Your task to perform on an android device: Show me popular videos on Youtube Image 0: 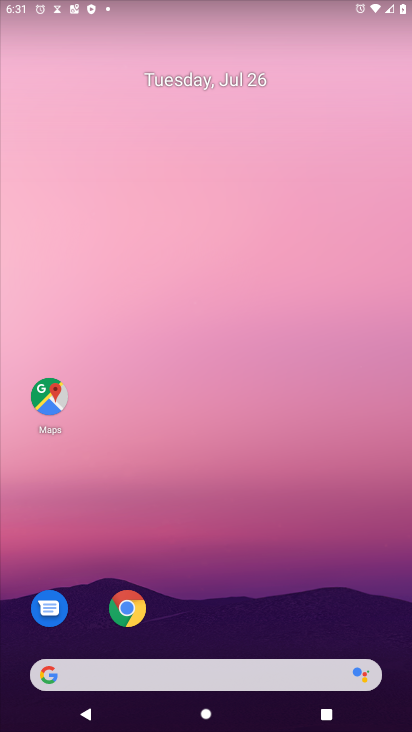
Step 0: press home button
Your task to perform on an android device: Show me popular videos on Youtube Image 1: 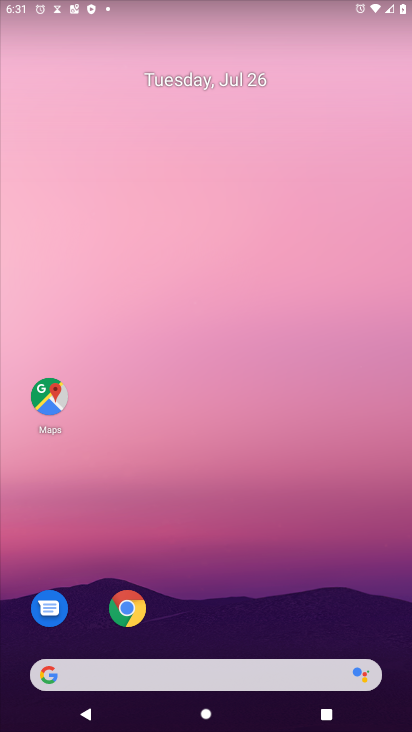
Step 1: drag from (227, 625) to (211, 246)
Your task to perform on an android device: Show me popular videos on Youtube Image 2: 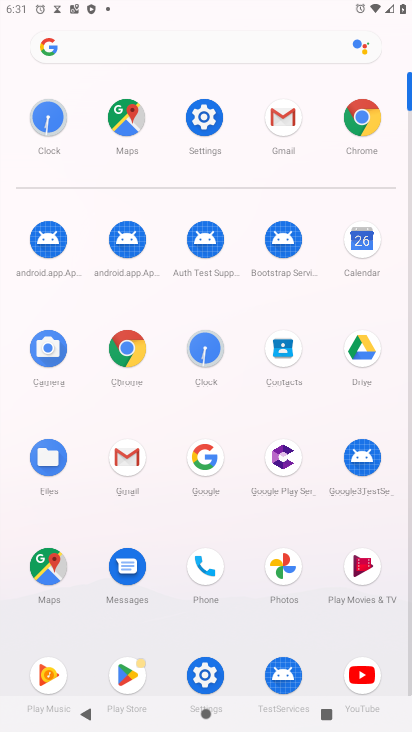
Step 2: click (367, 670)
Your task to perform on an android device: Show me popular videos on Youtube Image 3: 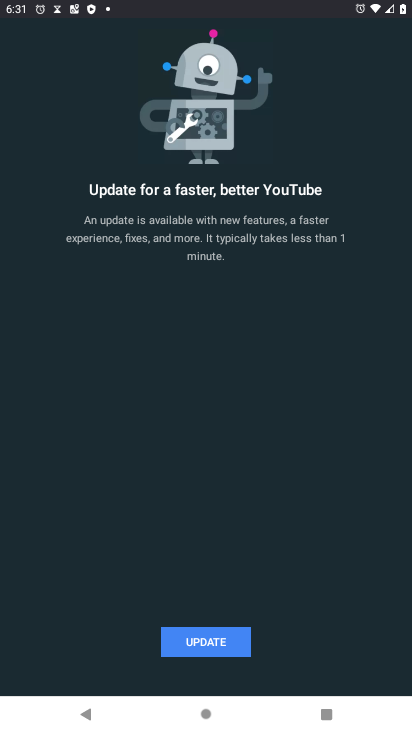
Step 3: click (186, 632)
Your task to perform on an android device: Show me popular videos on Youtube Image 4: 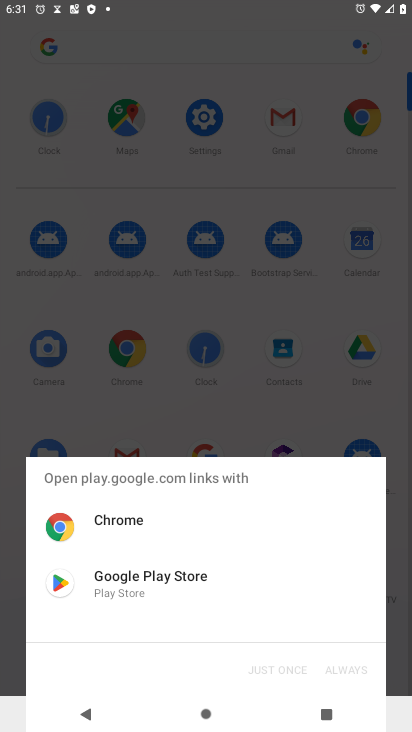
Step 4: click (150, 579)
Your task to perform on an android device: Show me popular videos on Youtube Image 5: 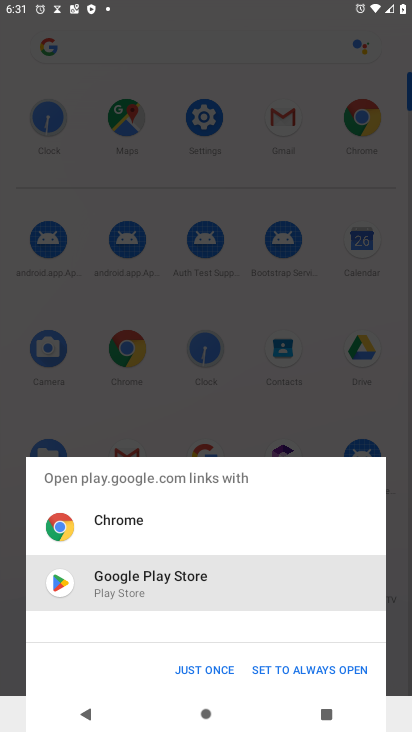
Step 5: click (197, 666)
Your task to perform on an android device: Show me popular videos on Youtube Image 6: 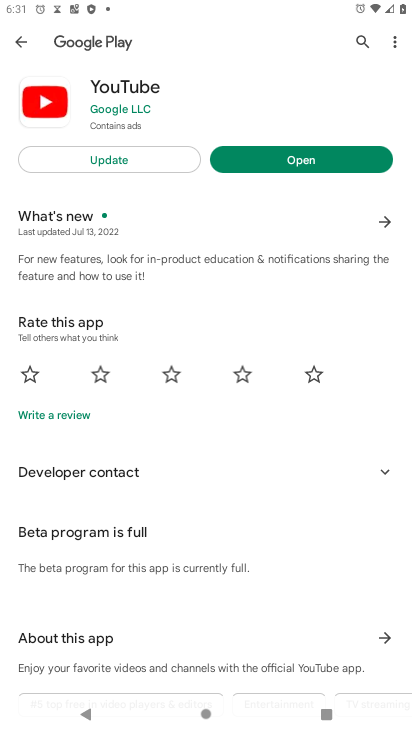
Step 6: click (147, 163)
Your task to perform on an android device: Show me popular videos on Youtube Image 7: 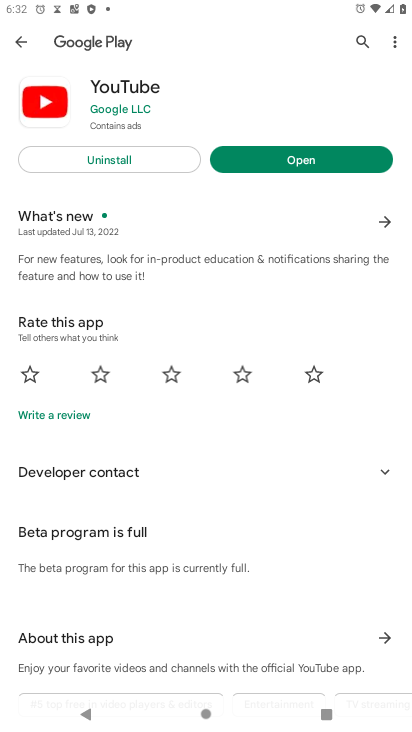
Step 7: click (272, 167)
Your task to perform on an android device: Show me popular videos on Youtube Image 8: 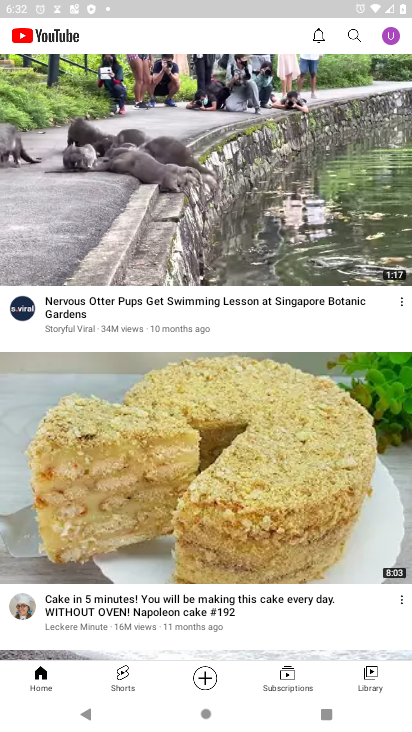
Step 8: click (41, 678)
Your task to perform on an android device: Show me popular videos on Youtube Image 9: 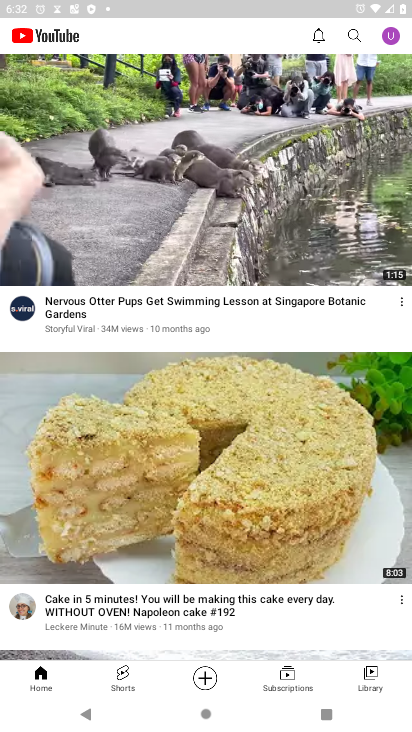
Step 9: drag from (140, 257) to (115, 720)
Your task to perform on an android device: Show me popular videos on Youtube Image 10: 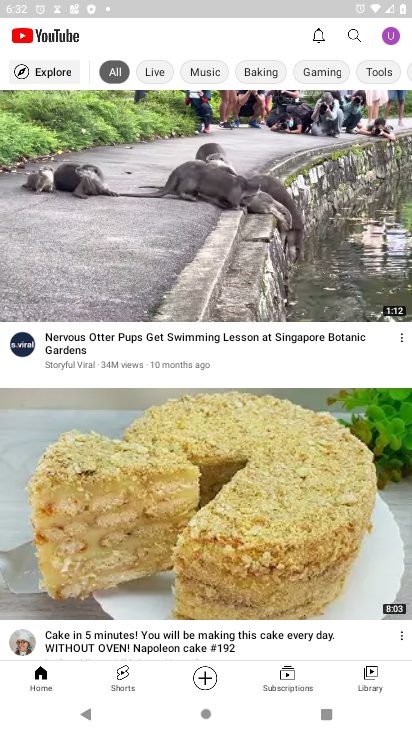
Step 10: click (44, 77)
Your task to perform on an android device: Show me popular videos on Youtube Image 11: 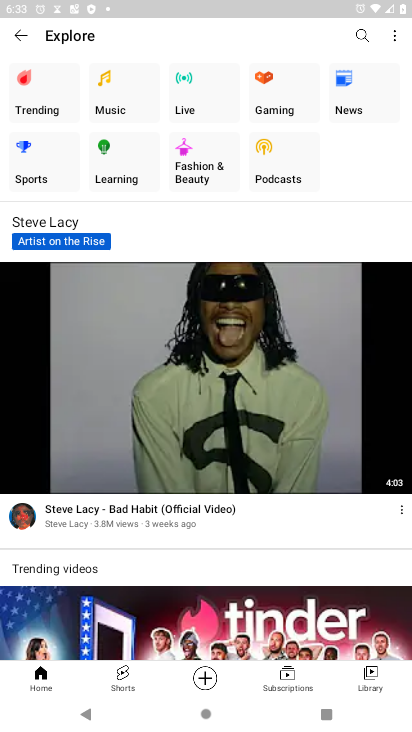
Step 11: click (28, 88)
Your task to perform on an android device: Show me popular videos on Youtube Image 12: 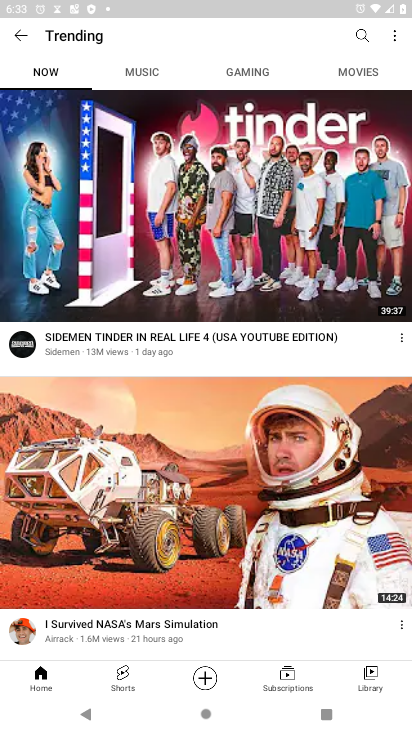
Step 12: task complete